Your task to perform on an android device: Show me the alarms in the clock app Image 0: 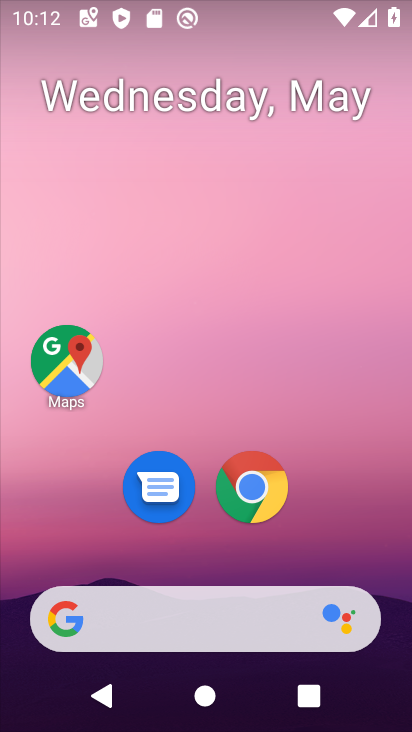
Step 0: drag from (205, 578) to (177, 25)
Your task to perform on an android device: Show me the alarms in the clock app Image 1: 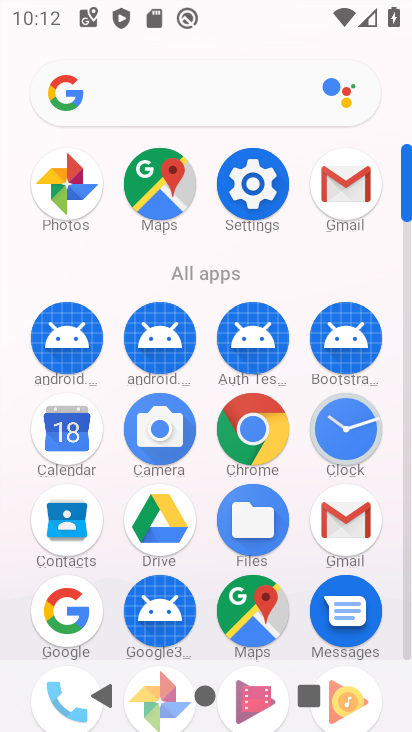
Step 1: click (340, 445)
Your task to perform on an android device: Show me the alarms in the clock app Image 2: 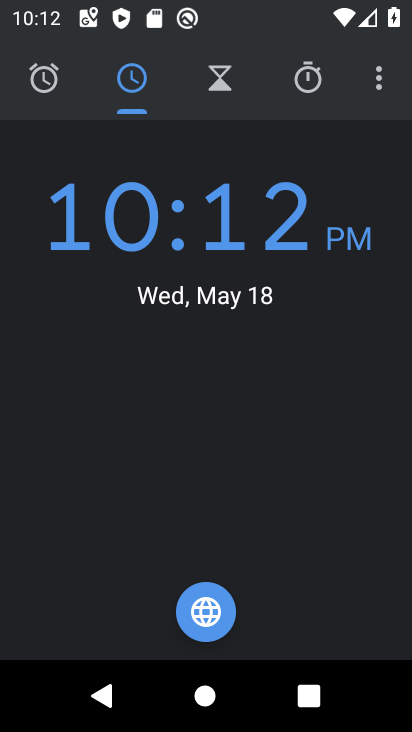
Step 2: click (58, 116)
Your task to perform on an android device: Show me the alarms in the clock app Image 3: 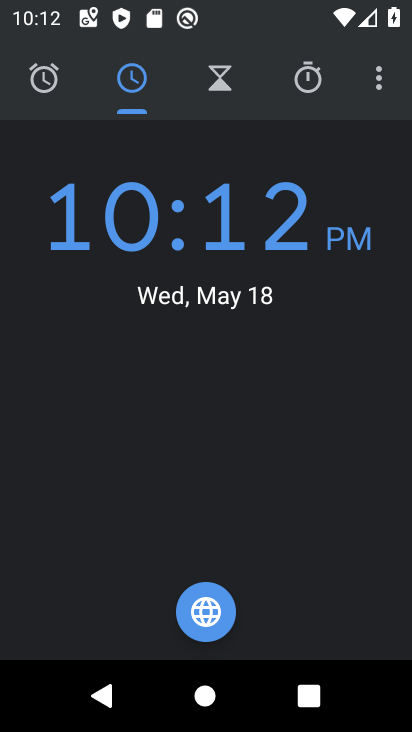
Step 3: click (53, 95)
Your task to perform on an android device: Show me the alarms in the clock app Image 4: 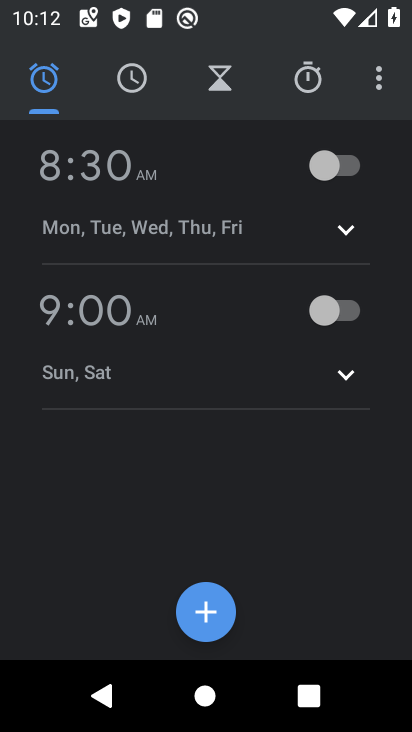
Step 4: task complete